Your task to perform on an android device: Clear all items from cart on ebay.com. Image 0: 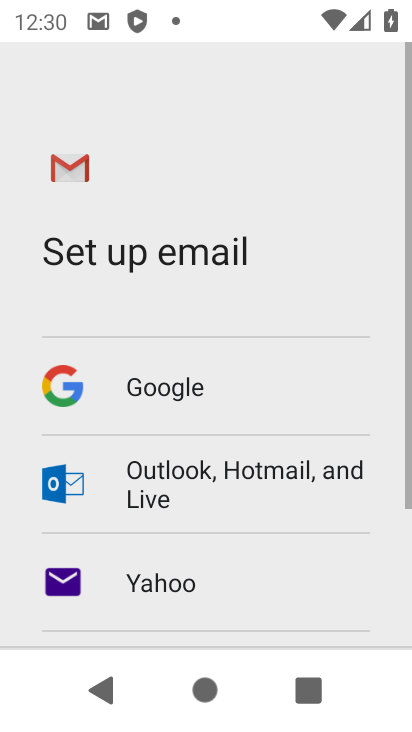
Step 0: press home button
Your task to perform on an android device: Clear all items from cart on ebay.com. Image 1: 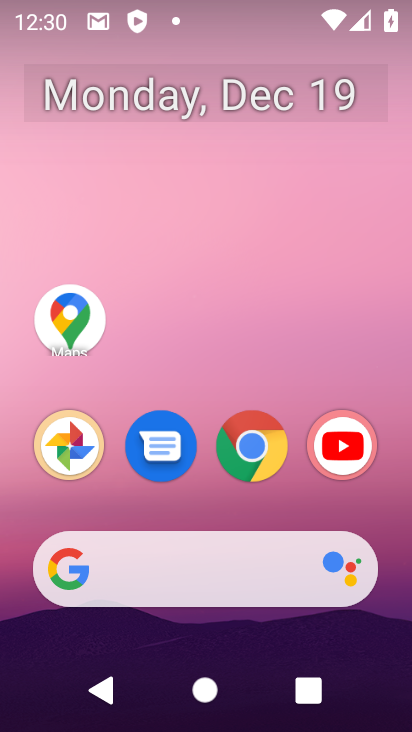
Step 1: click (261, 456)
Your task to perform on an android device: Clear all items from cart on ebay.com. Image 2: 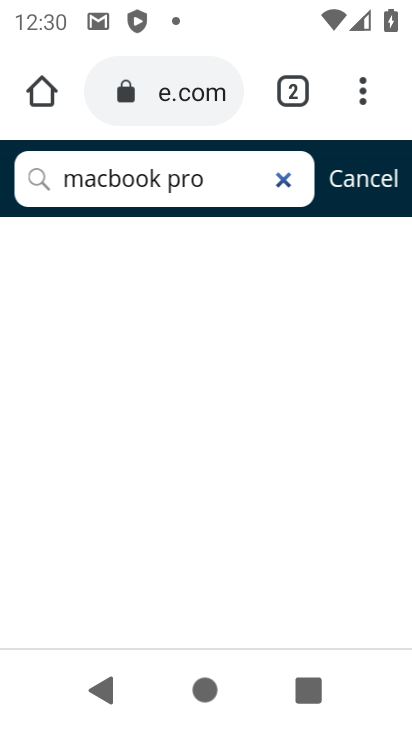
Step 2: click (182, 82)
Your task to perform on an android device: Clear all items from cart on ebay.com. Image 3: 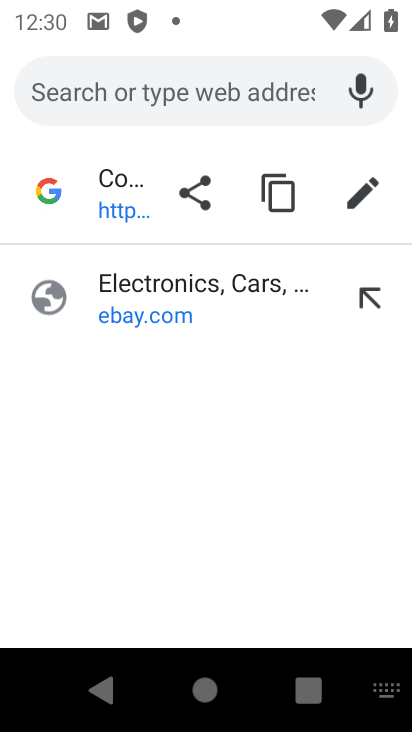
Step 3: click (103, 293)
Your task to perform on an android device: Clear all items from cart on ebay.com. Image 4: 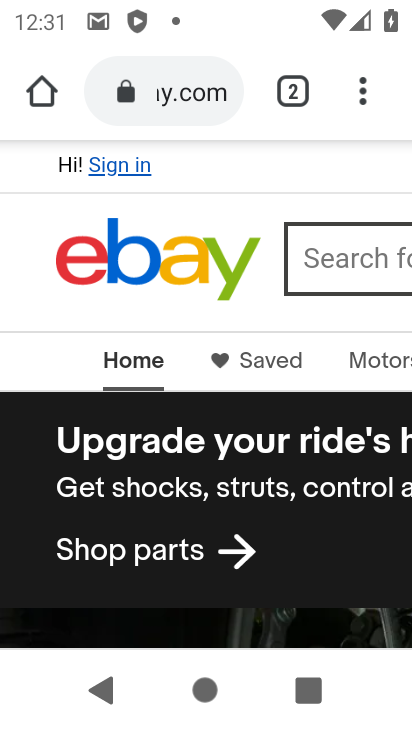
Step 4: task complete